Your task to perform on an android device: turn pop-ups on in chrome Image 0: 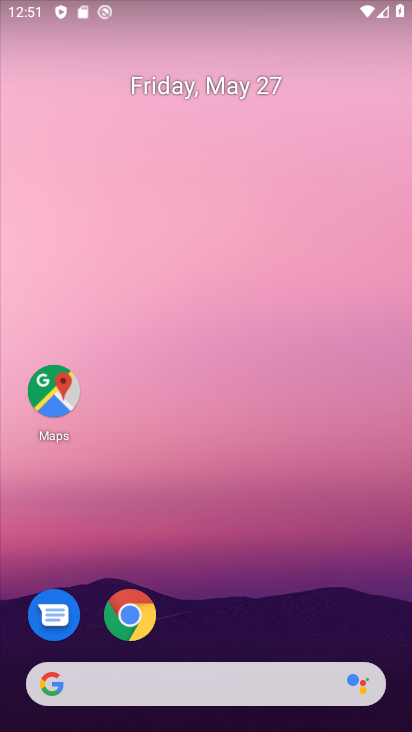
Step 0: drag from (271, 610) to (364, 173)
Your task to perform on an android device: turn pop-ups on in chrome Image 1: 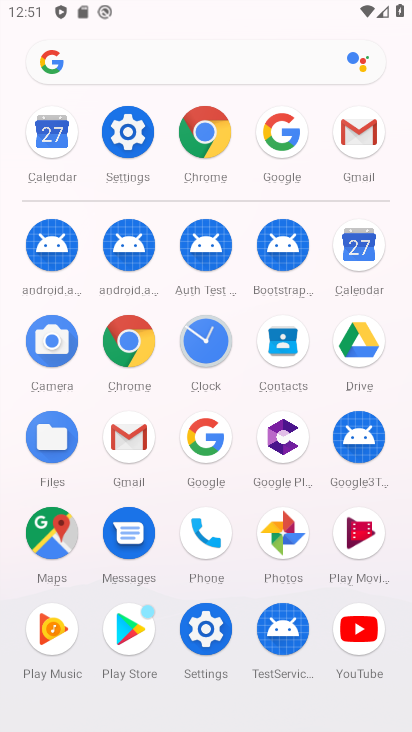
Step 1: click (142, 354)
Your task to perform on an android device: turn pop-ups on in chrome Image 2: 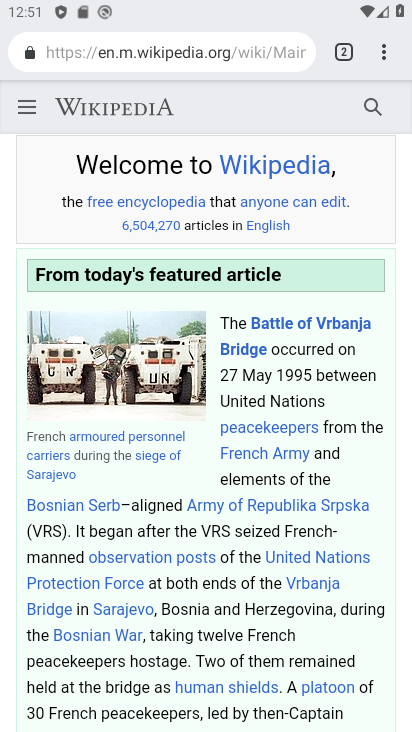
Step 2: click (388, 53)
Your task to perform on an android device: turn pop-ups on in chrome Image 3: 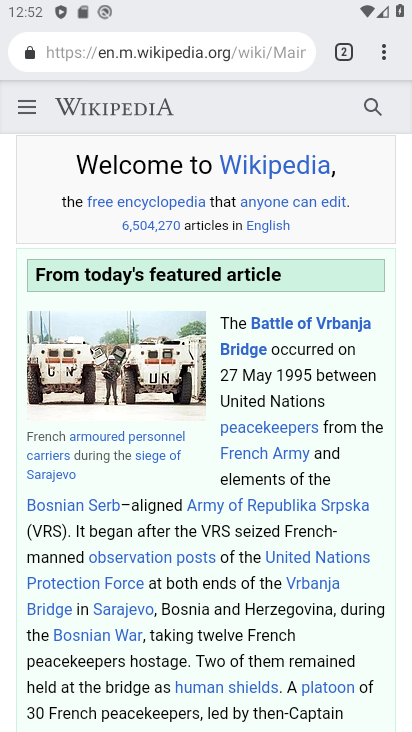
Step 3: click (382, 59)
Your task to perform on an android device: turn pop-ups on in chrome Image 4: 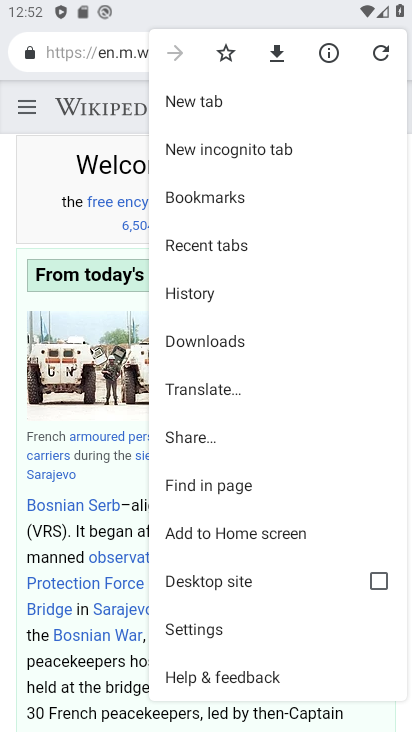
Step 4: drag from (237, 545) to (291, 271)
Your task to perform on an android device: turn pop-ups on in chrome Image 5: 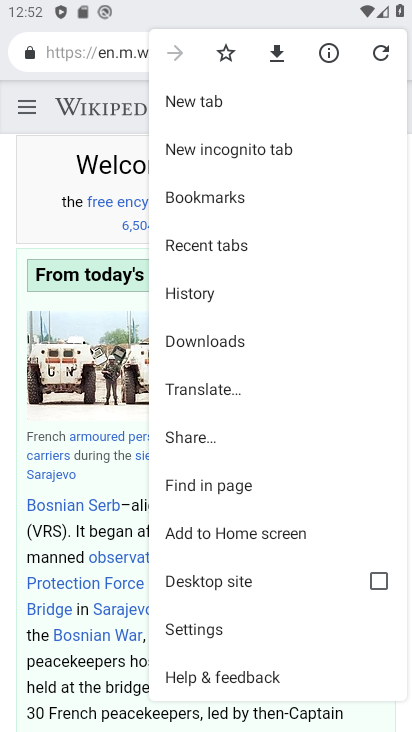
Step 5: click (197, 636)
Your task to perform on an android device: turn pop-ups on in chrome Image 6: 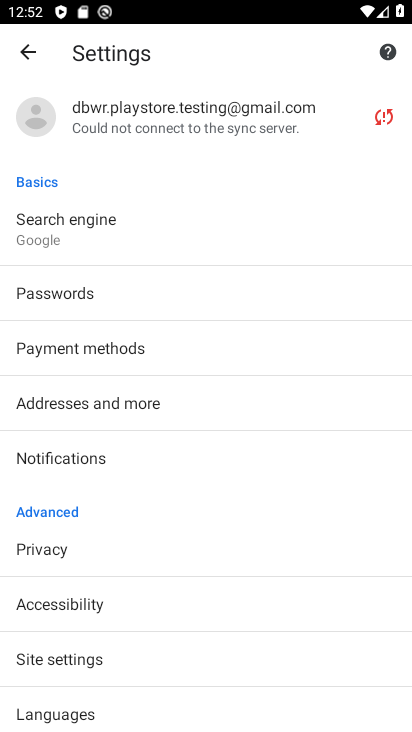
Step 6: click (144, 662)
Your task to perform on an android device: turn pop-ups on in chrome Image 7: 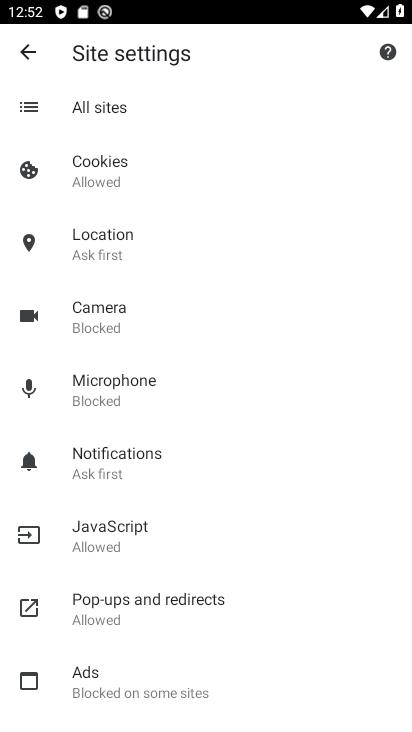
Step 7: click (179, 604)
Your task to perform on an android device: turn pop-ups on in chrome Image 8: 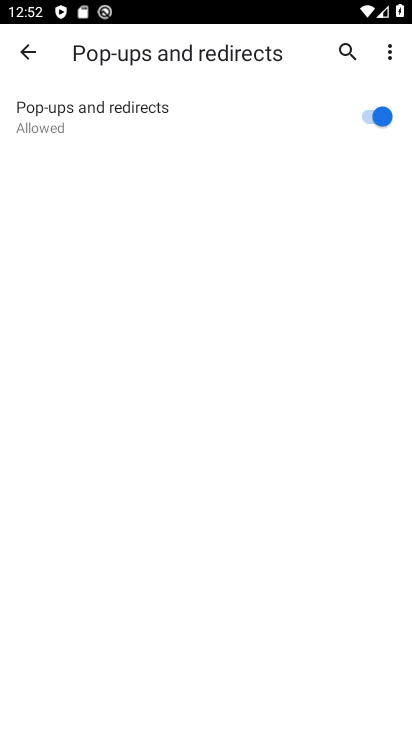
Step 8: task complete